Your task to perform on an android device: turn on location history Image 0: 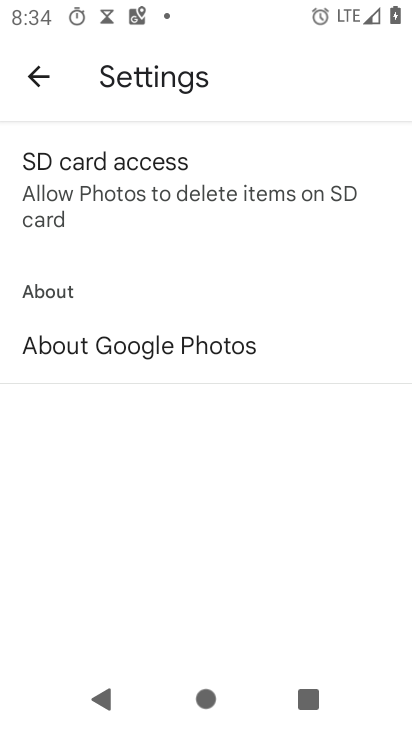
Step 0: press home button
Your task to perform on an android device: turn on location history Image 1: 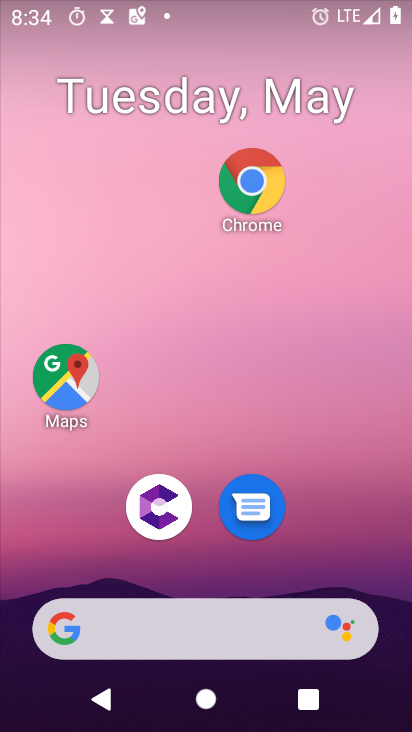
Step 1: drag from (354, 557) to (330, 39)
Your task to perform on an android device: turn on location history Image 2: 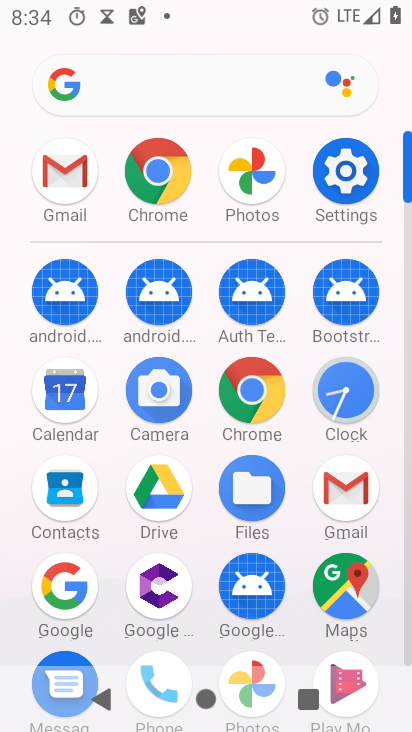
Step 2: click (349, 165)
Your task to perform on an android device: turn on location history Image 3: 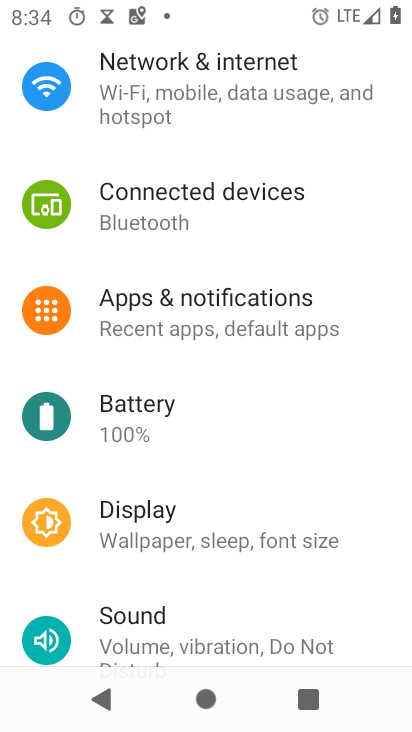
Step 3: drag from (274, 464) to (282, 276)
Your task to perform on an android device: turn on location history Image 4: 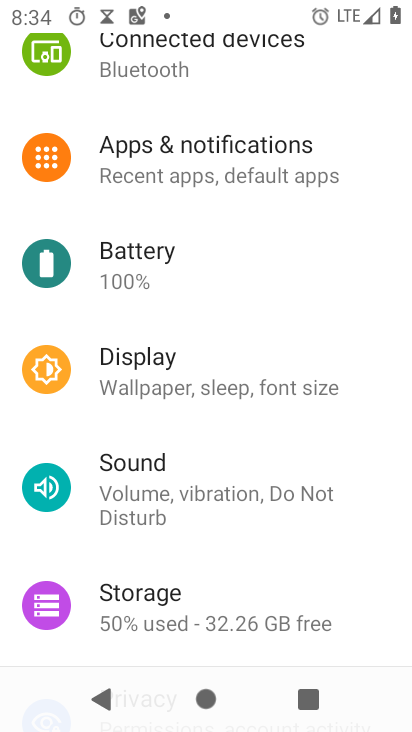
Step 4: drag from (282, 572) to (258, 411)
Your task to perform on an android device: turn on location history Image 5: 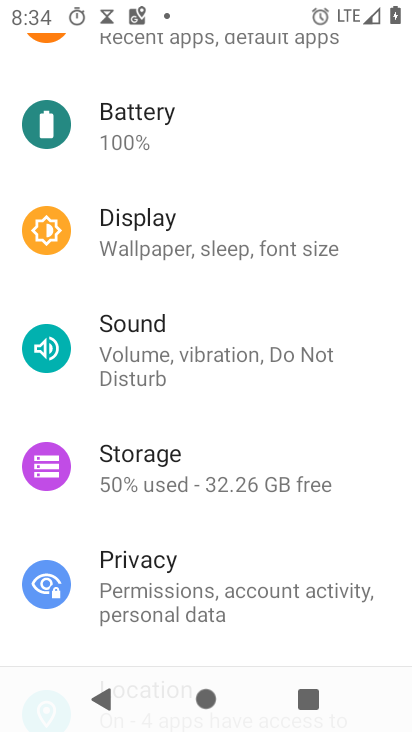
Step 5: drag from (288, 570) to (247, 413)
Your task to perform on an android device: turn on location history Image 6: 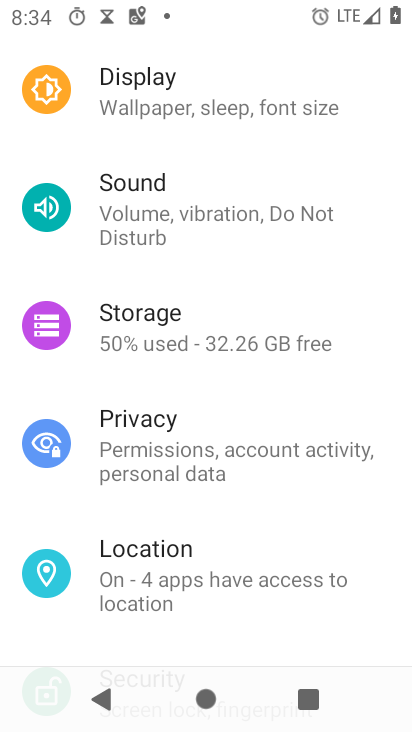
Step 6: click (250, 575)
Your task to perform on an android device: turn on location history Image 7: 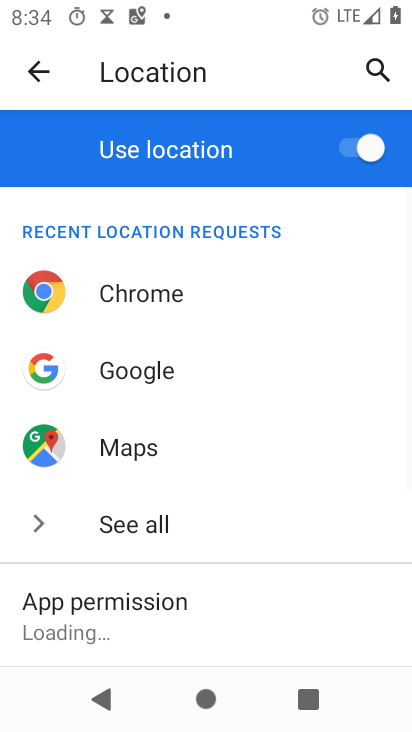
Step 7: drag from (250, 570) to (266, 427)
Your task to perform on an android device: turn on location history Image 8: 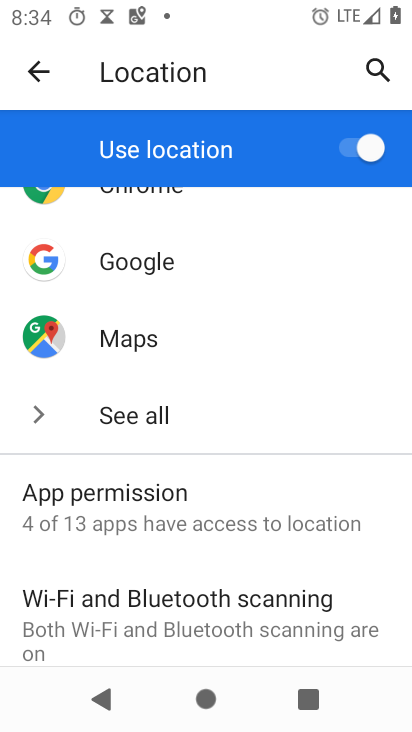
Step 8: drag from (343, 601) to (324, 411)
Your task to perform on an android device: turn on location history Image 9: 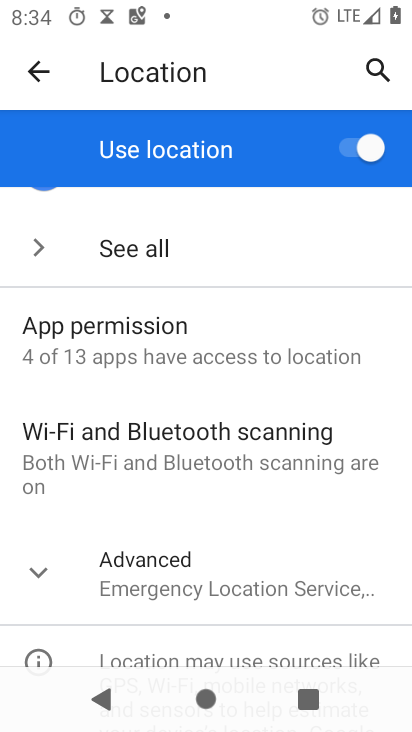
Step 9: click (306, 595)
Your task to perform on an android device: turn on location history Image 10: 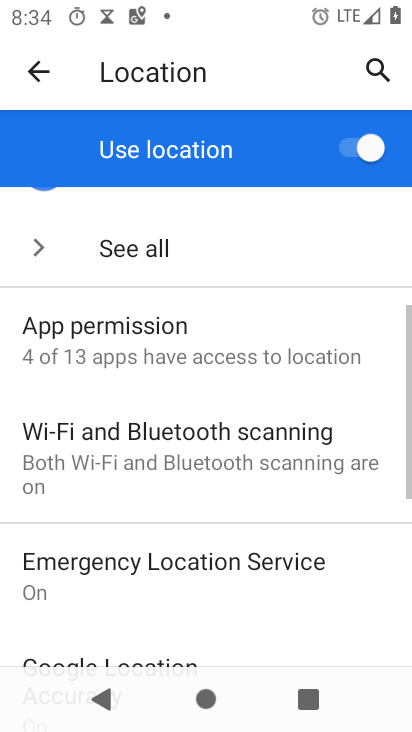
Step 10: drag from (306, 608) to (265, 421)
Your task to perform on an android device: turn on location history Image 11: 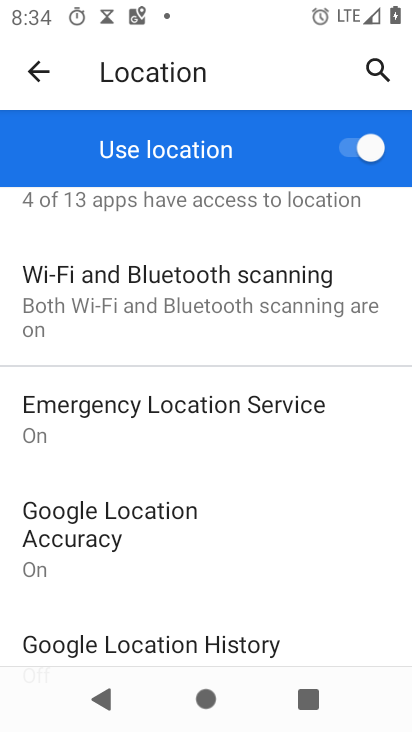
Step 11: click (241, 641)
Your task to perform on an android device: turn on location history Image 12: 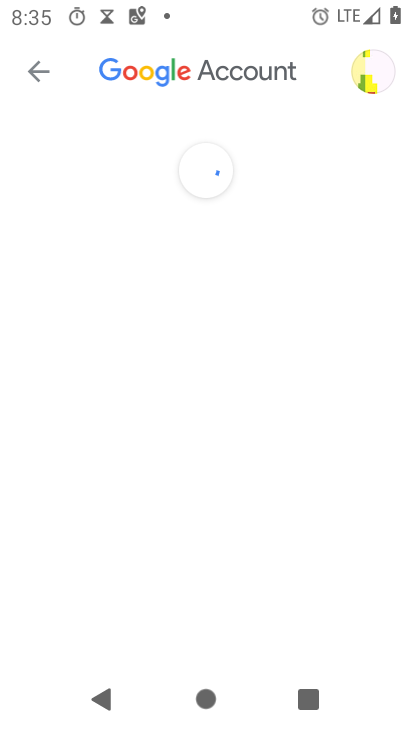
Step 12: task complete